Your task to perform on an android device: Go to notification settings Image 0: 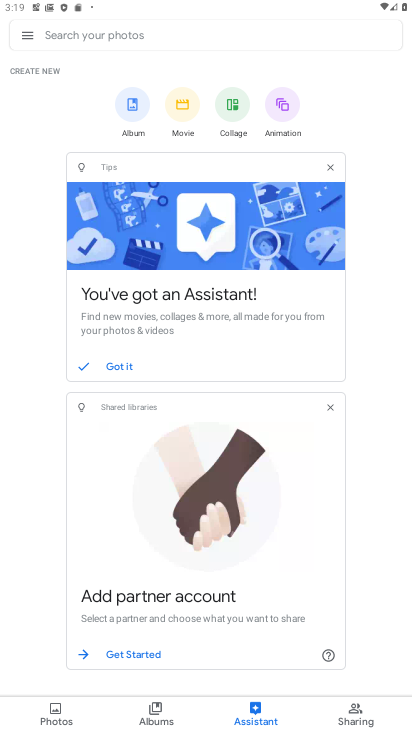
Step 0: press home button
Your task to perform on an android device: Go to notification settings Image 1: 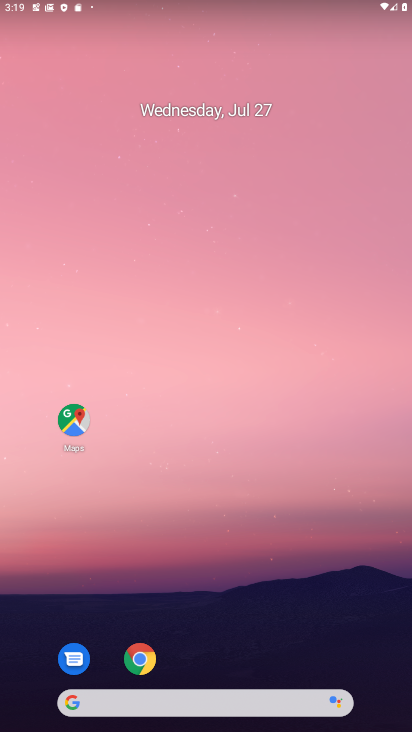
Step 1: drag from (158, 689) to (225, 285)
Your task to perform on an android device: Go to notification settings Image 2: 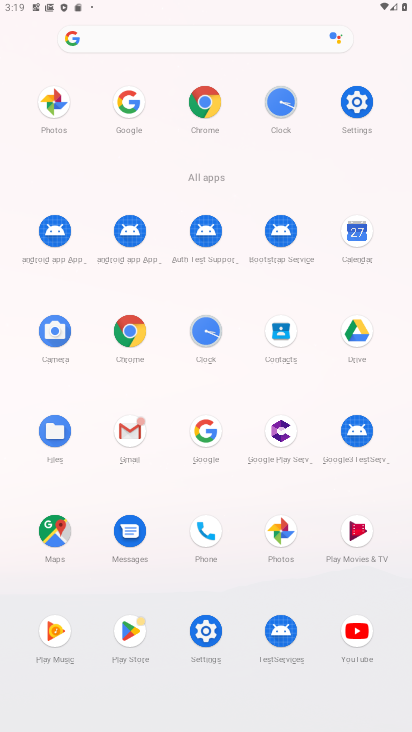
Step 2: click (356, 101)
Your task to perform on an android device: Go to notification settings Image 3: 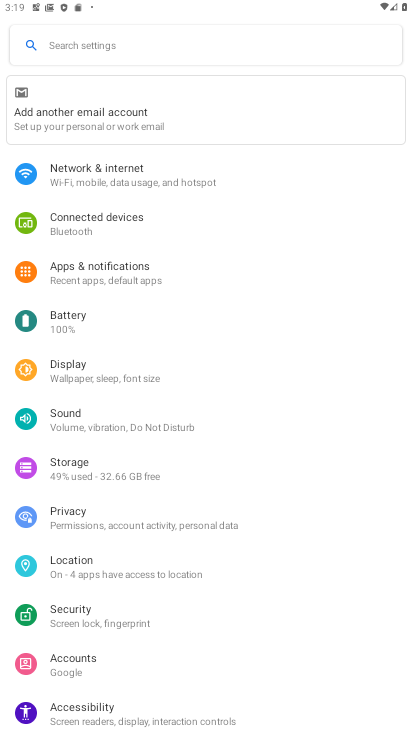
Step 3: click (113, 272)
Your task to perform on an android device: Go to notification settings Image 4: 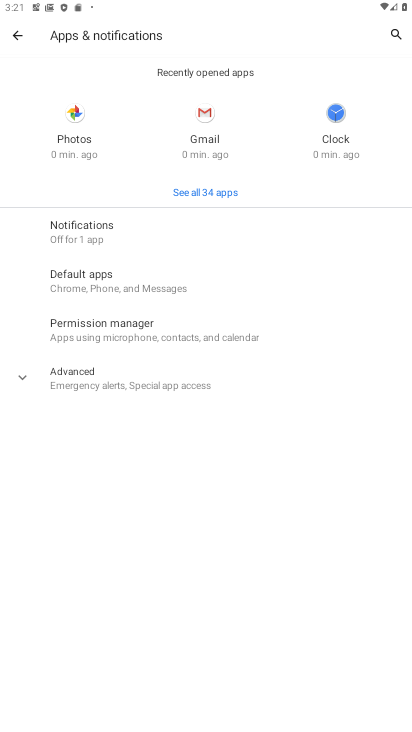
Step 4: click (85, 222)
Your task to perform on an android device: Go to notification settings Image 5: 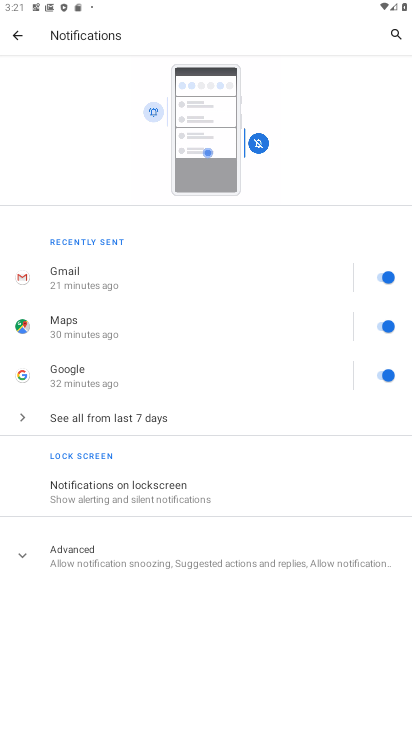
Step 5: task complete